Your task to perform on an android device: turn on airplane mode Image 0: 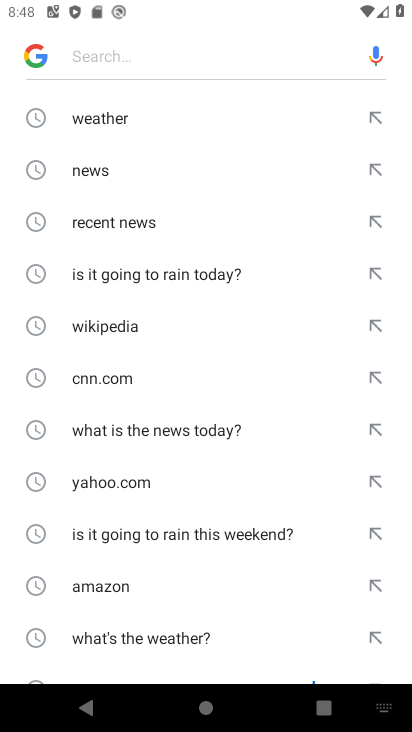
Step 0: press home button
Your task to perform on an android device: turn on airplane mode Image 1: 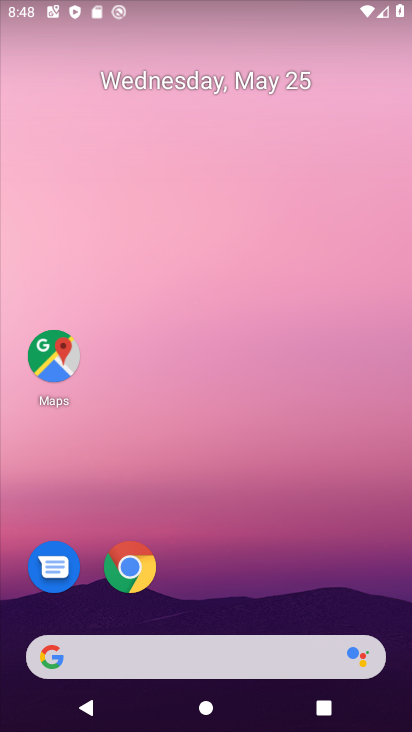
Step 1: drag from (169, 560) to (223, 30)
Your task to perform on an android device: turn on airplane mode Image 2: 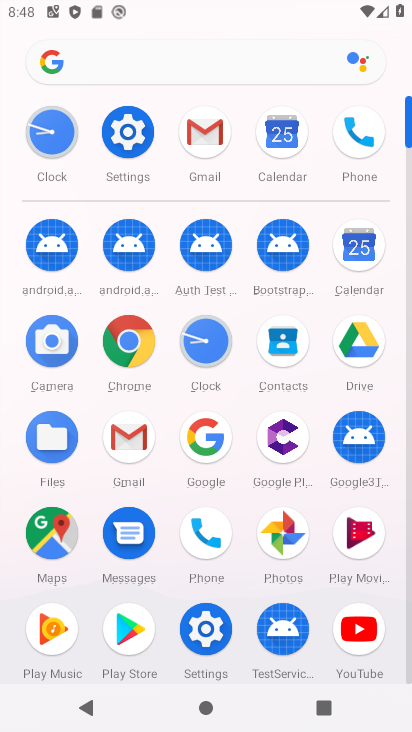
Step 2: click (140, 124)
Your task to perform on an android device: turn on airplane mode Image 3: 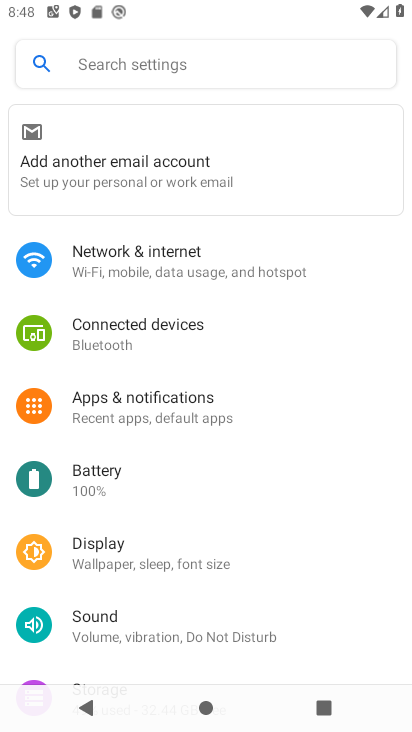
Step 3: click (128, 127)
Your task to perform on an android device: turn on airplane mode Image 4: 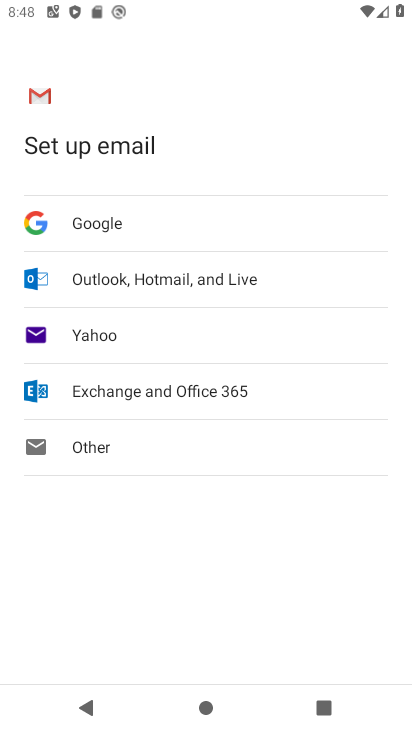
Step 4: press home button
Your task to perform on an android device: turn on airplane mode Image 5: 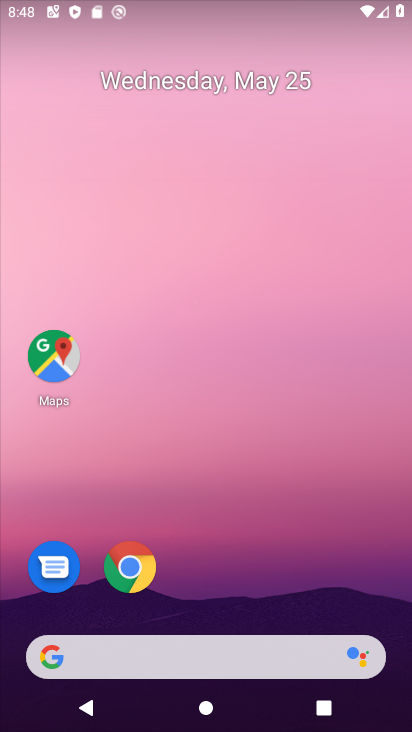
Step 5: drag from (233, 533) to (261, 30)
Your task to perform on an android device: turn on airplane mode Image 6: 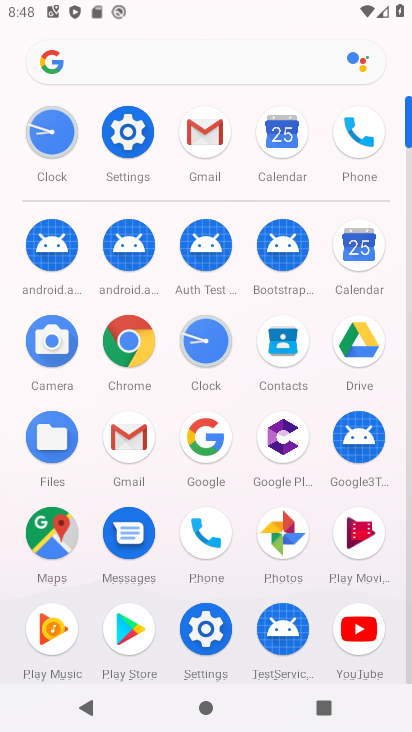
Step 6: click (121, 131)
Your task to perform on an android device: turn on airplane mode Image 7: 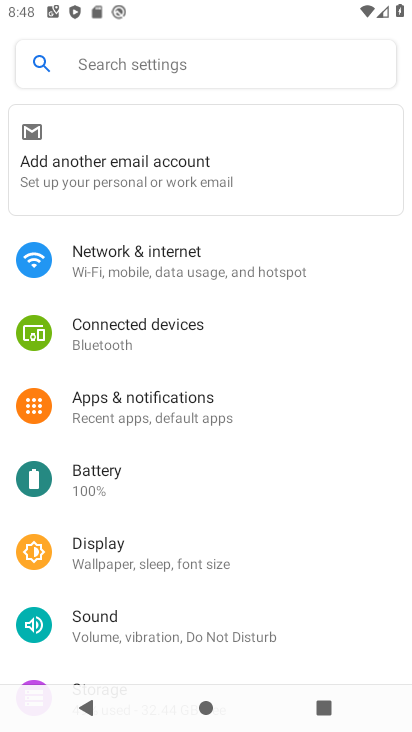
Step 7: click (171, 253)
Your task to perform on an android device: turn on airplane mode Image 8: 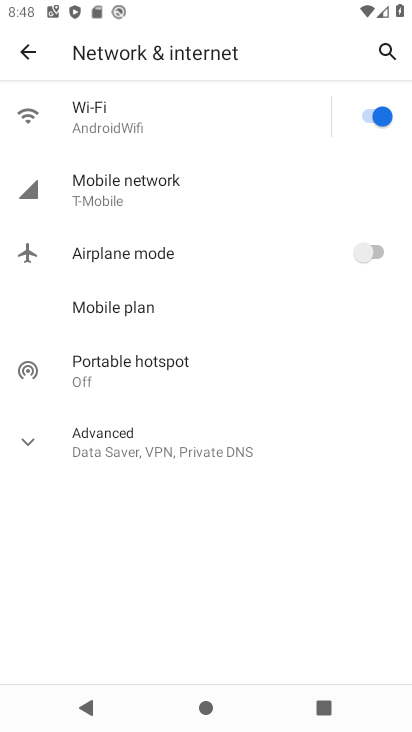
Step 8: click (363, 247)
Your task to perform on an android device: turn on airplane mode Image 9: 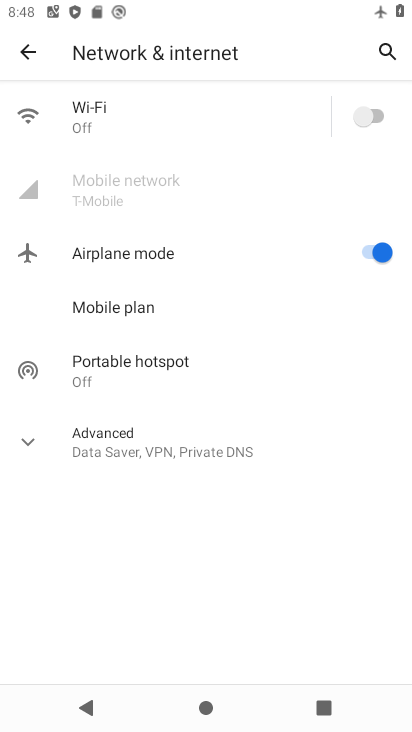
Step 9: task complete